Your task to perform on an android device: Turn on the flashlight Image 0: 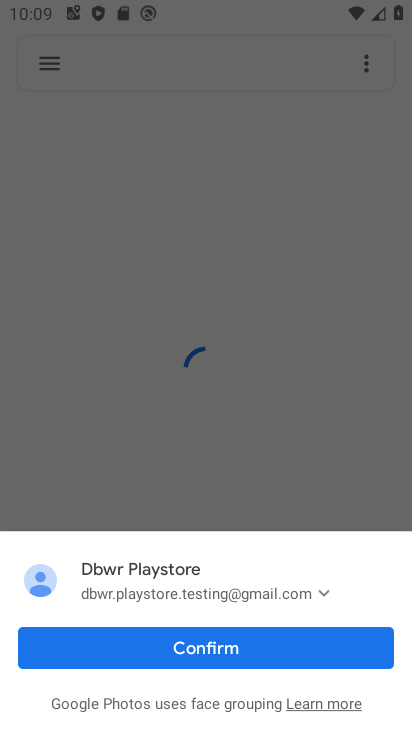
Step 0: press back button
Your task to perform on an android device: Turn on the flashlight Image 1: 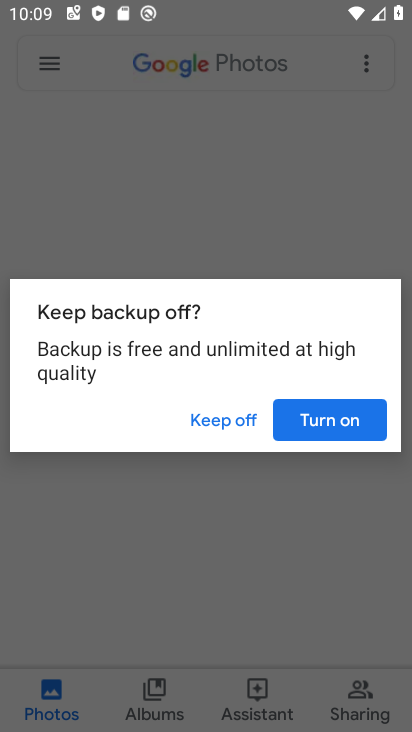
Step 1: press home button
Your task to perform on an android device: Turn on the flashlight Image 2: 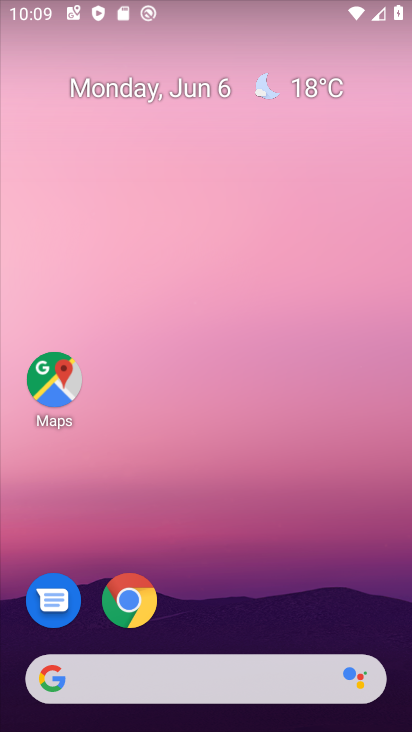
Step 2: drag from (270, 567) to (248, 13)
Your task to perform on an android device: Turn on the flashlight Image 3: 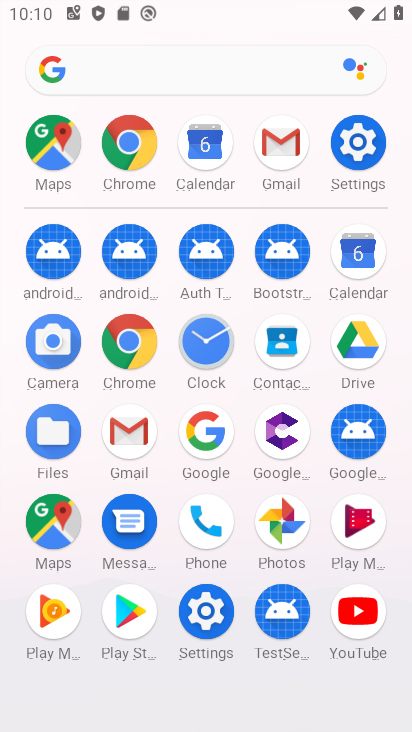
Step 3: click (357, 139)
Your task to perform on an android device: Turn on the flashlight Image 4: 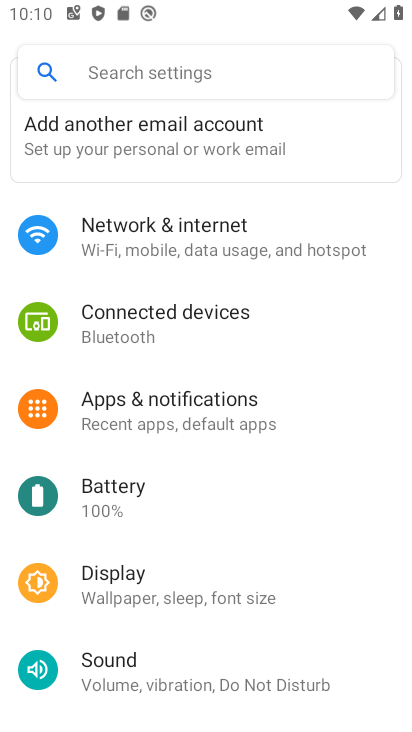
Step 4: click (250, 229)
Your task to perform on an android device: Turn on the flashlight Image 5: 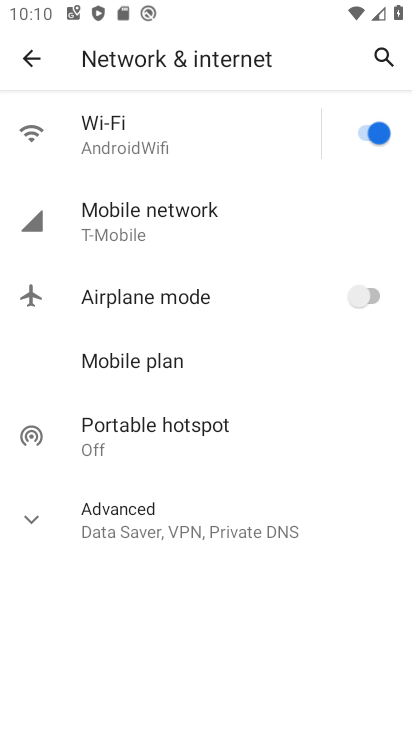
Step 5: click (38, 517)
Your task to perform on an android device: Turn on the flashlight Image 6: 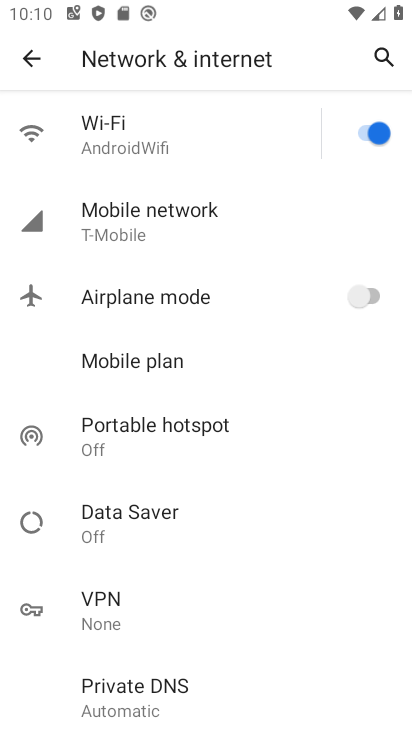
Step 6: task complete